Your task to perform on an android device: toggle show notifications on the lock screen Image 0: 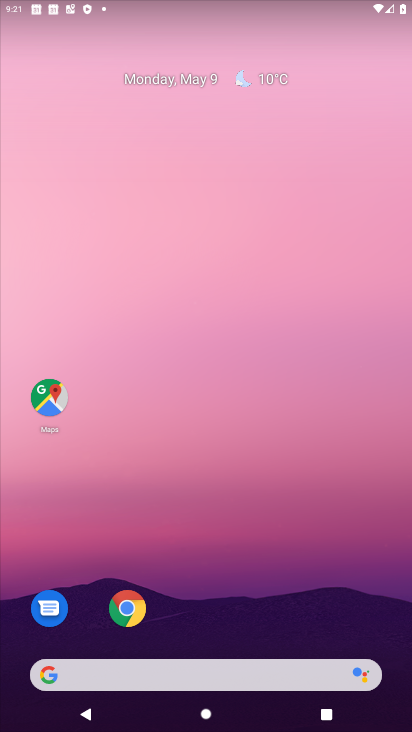
Step 0: drag from (349, 541) to (411, 575)
Your task to perform on an android device: toggle show notifications on the lock screen Image 1: 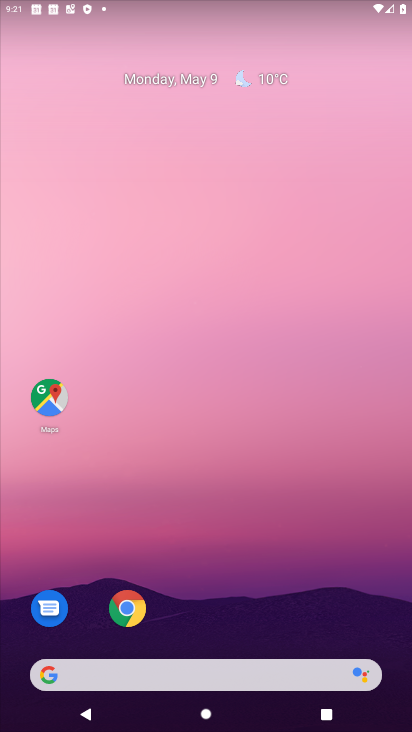
Step 1: drag from (406, 559) to (404, 117)
Your task to perform on an android device: toggle show notifications on the lock screen Image 2: 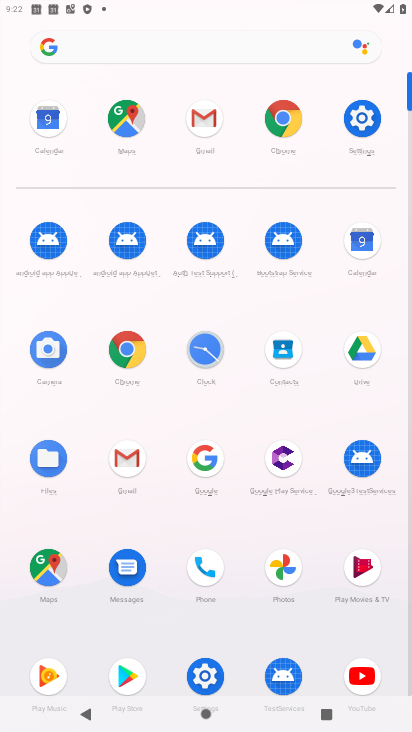
Step 2: drag from (303, 414) to (302, 46)
Your task to perform on an android device: toggle show notifications on the lock screen Image 3: 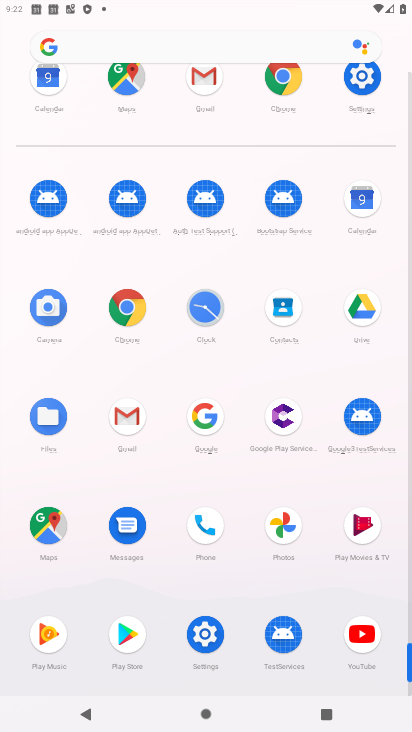
Step 3: click (371, 81)
Your task to perform on an android device: toggle show notifications on the lock screen Image 4: 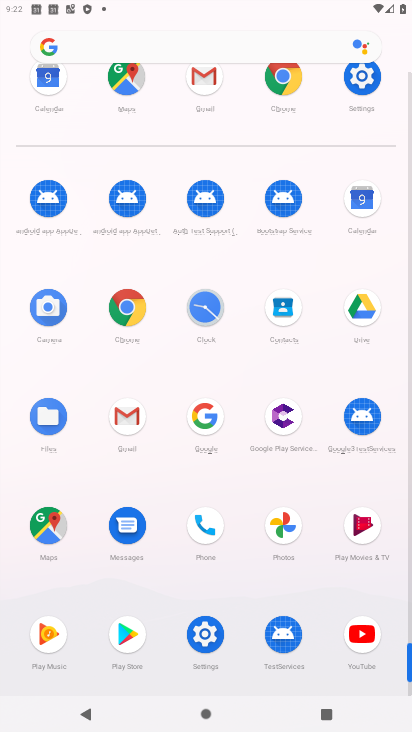
Step 4: click (374, 81)
Your task to perform on an android device: toggle show notifications on the lock screen Image 5: 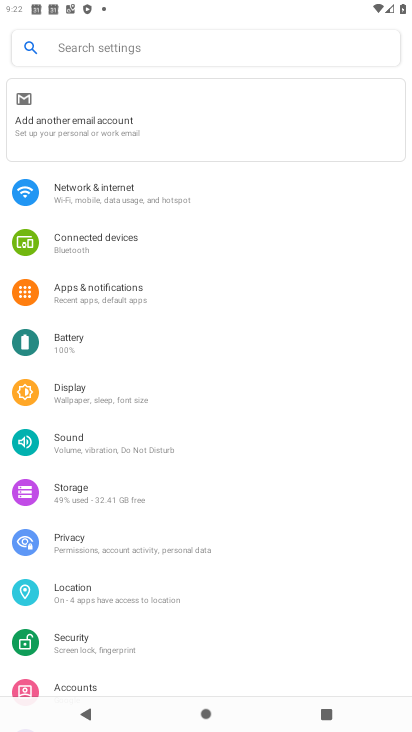
Step 5: click (124, 292)
Your task to perform on an android device: toggle show notifications on the lock screen Image 6: 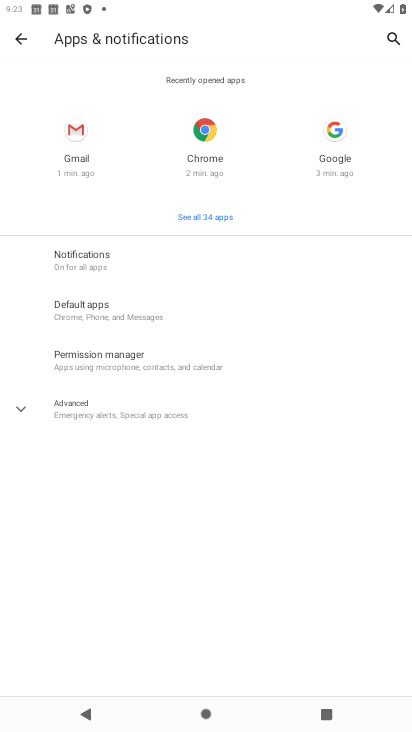
Step 6: click (80, 404)
Your task to perform on an android device: toggle show notifications on the lock screen Image 7: 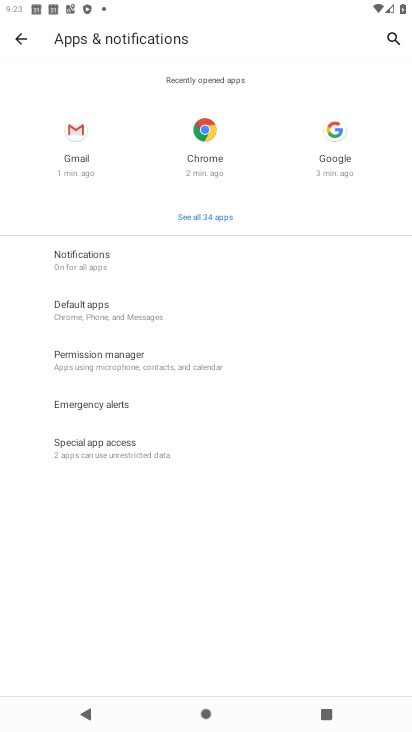
Step 7: click (62, 270)
Your task to perform on an android device: toggle show notifications on the lock screen Image 8: 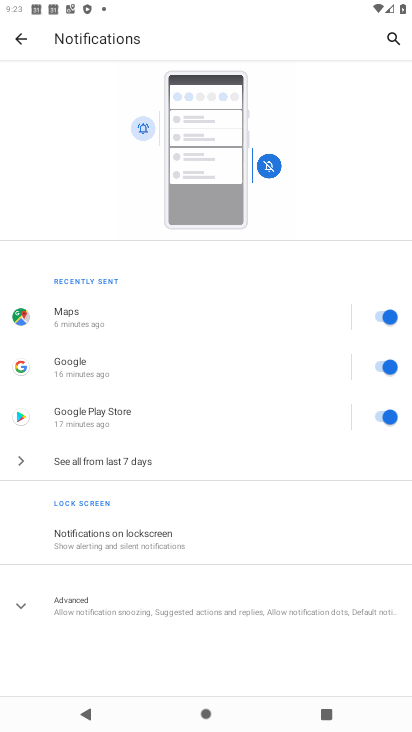
Step 8: click (85, 535)
Your task to perform on an android device: toggle show notifications on the lock screen Image 9: 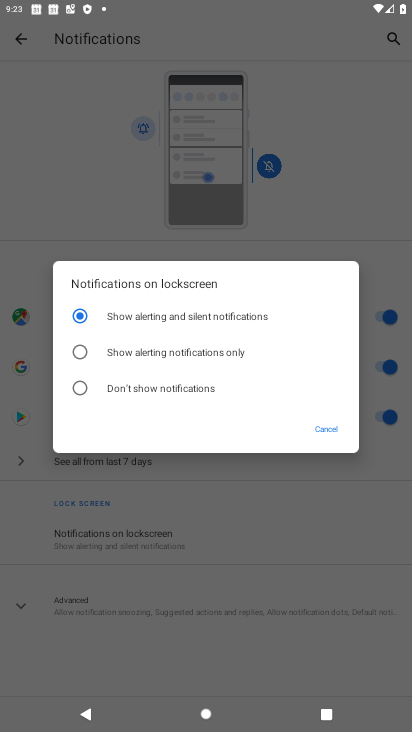
Step 9: click (90, 359)
Your task to perform on an android device: toggle show notifications on the lock screen Image 10: 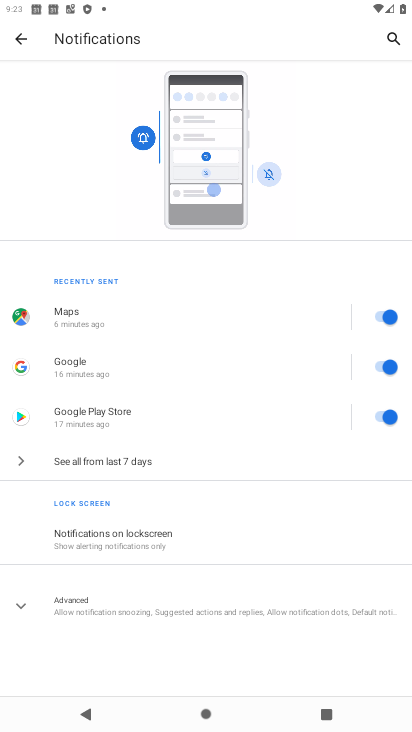
Step 10: task complete